Your task to perform on an android device: turn off improve location accuracy Image 0: 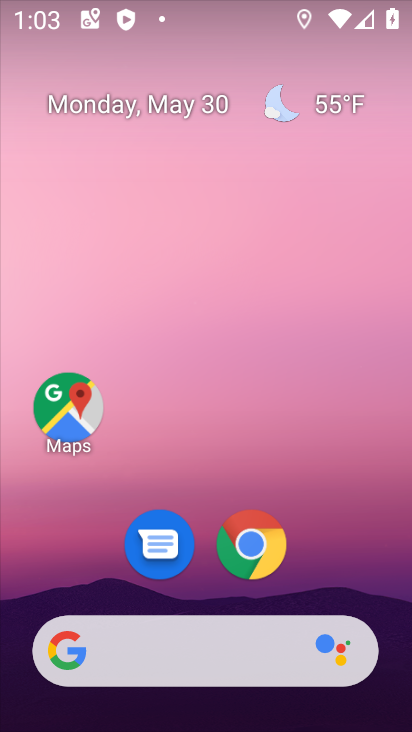
Step 0: drag from (353, 595) to (297, 126)
Your task to perform on an android device: turn off improve location accuracy Image 1: 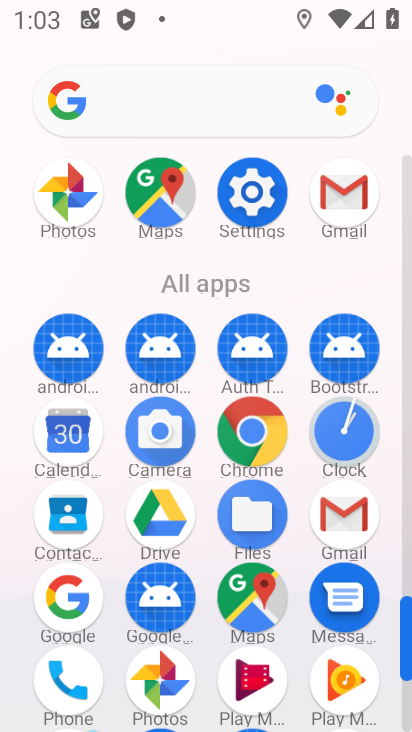
Step 1: click (245, 196)
Your task to perform on an android device: turn off improve location accuracy Image 2: 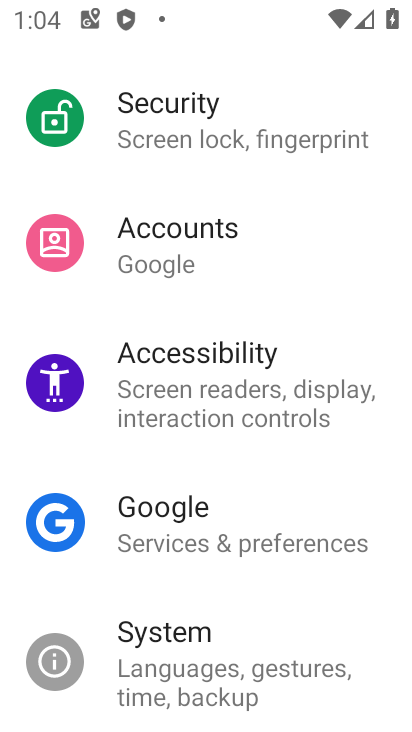
Step 2: drag from (213, 632) to (152, 694)
Your task to perform on an android device: turn off improve location accuracy Image 3: 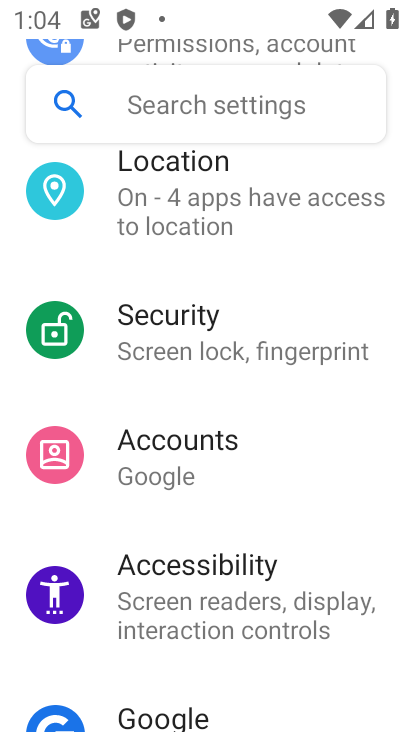
Step 3: drag from (134, 297) to (118, 557)
Your task to perform on an android device: turn off improve location accuracy Image 4: 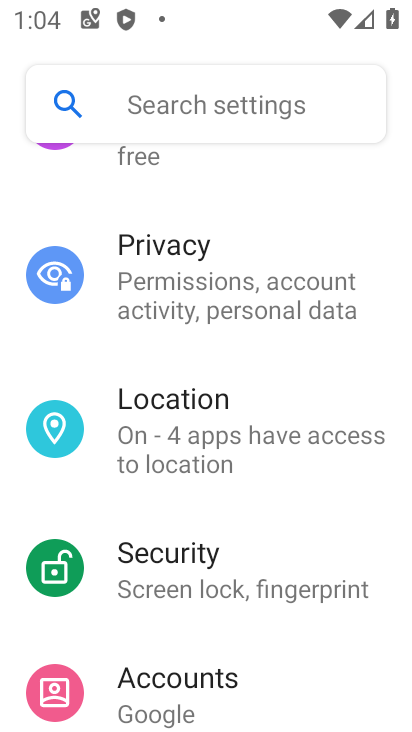
Step 4: click (189, 417)
Your task to perform on an android device: turn off improve location accuracy Image 5: 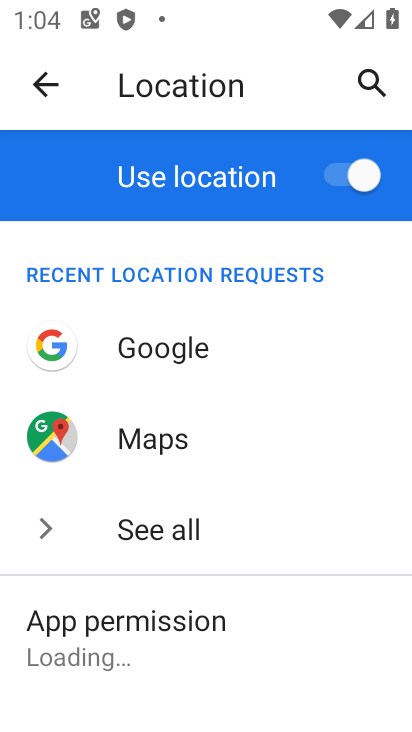
Step 5: drag from (269, 692) to (235, 269)
Your task to perform on an android device: turn off improve location accuracy Image 6: 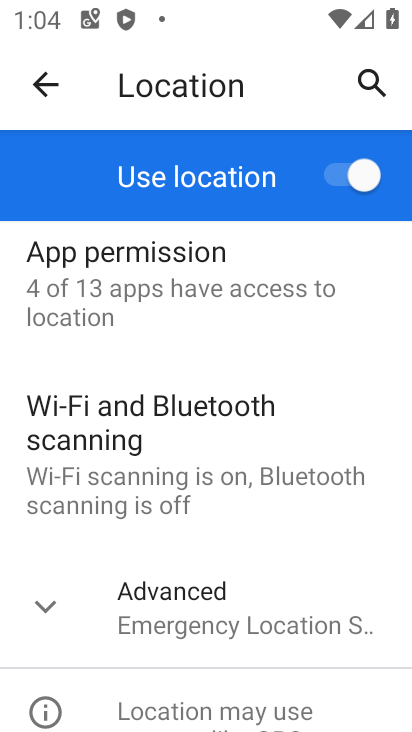
Step 6: click (223, 631)
Your task to perform on an android device: turn off improve location accuracy Image 7: 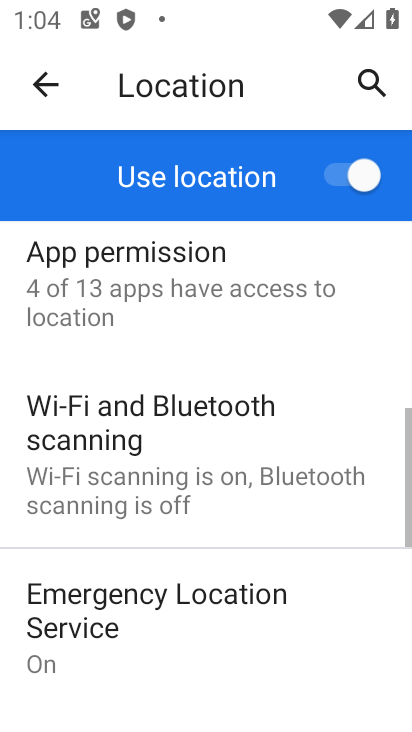
Step 7: drag from (223, 631) to (201, 286)
Your task to perform on an android device: turn off improve location accuracy Image 8: 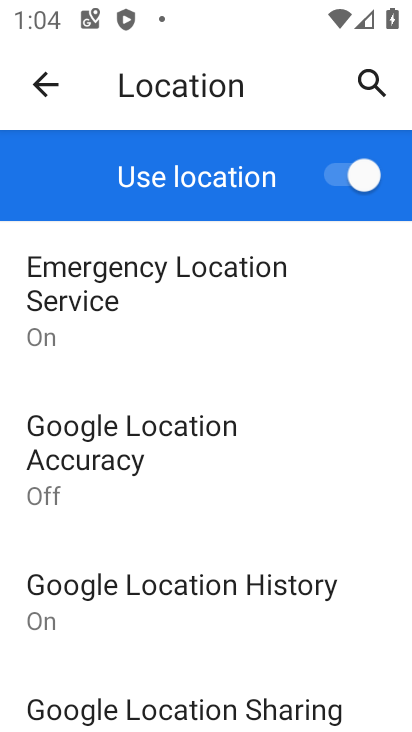
Step 8: click (203, 451)
Your task to perform on an android device: turn off improve location accuracy Image 9: 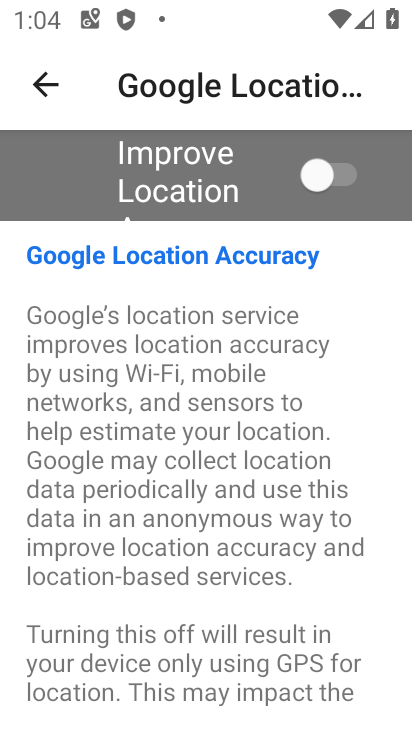
Step 9: task complete